Your task to perform on an android device: Open internet settings Image 0: 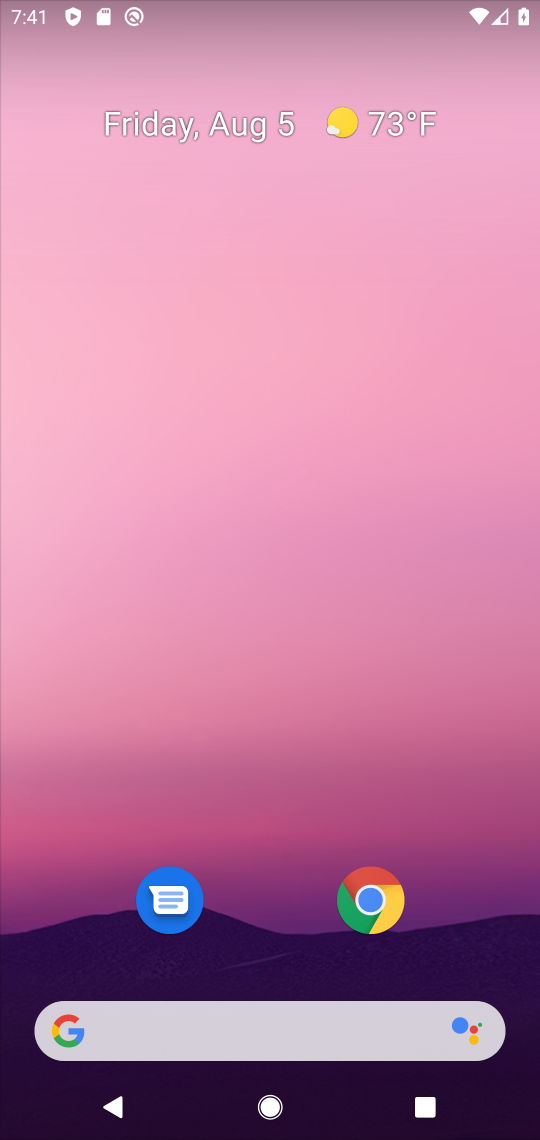
Step 0: drag from (191, 1003) to (287, 354)
Your task to perform on an android device: Open internet settings Image 1: 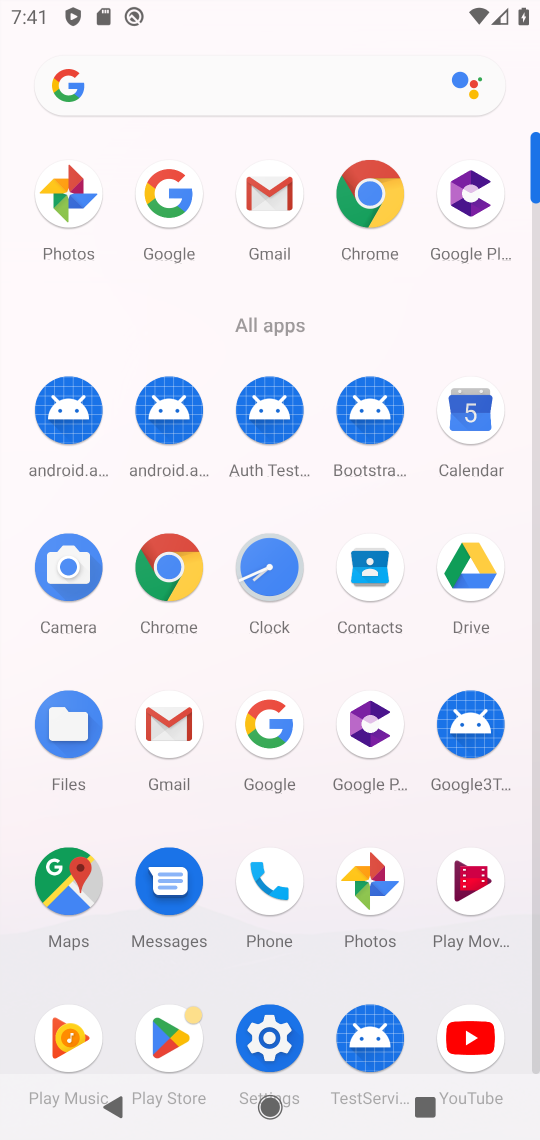
Step 1: click (277, 1042)
Your task to perform on an android device: Open internet settings Image 2: 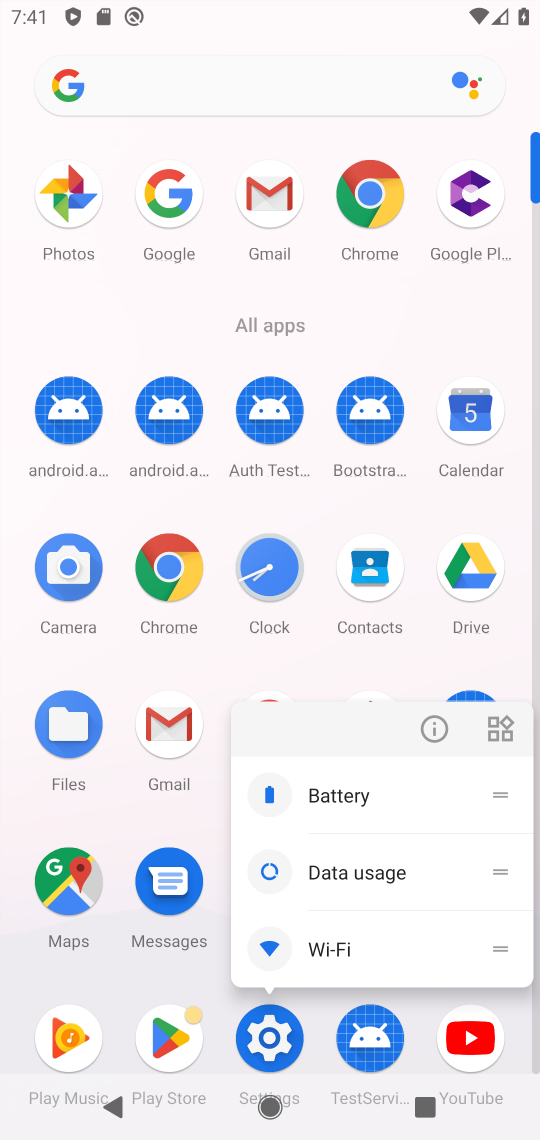
Step 2: click (273, 1041)
Your task to perform on an android device: Open internet settings Image 3: 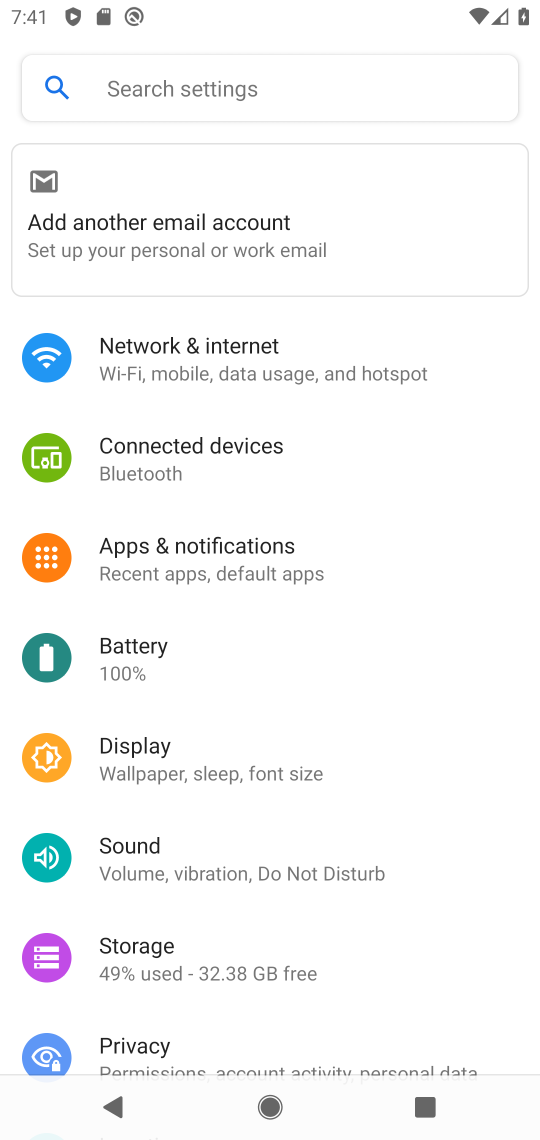
Step 3: click (166, 353)
Your task to perform on an android device: Open internet settings Image 4: 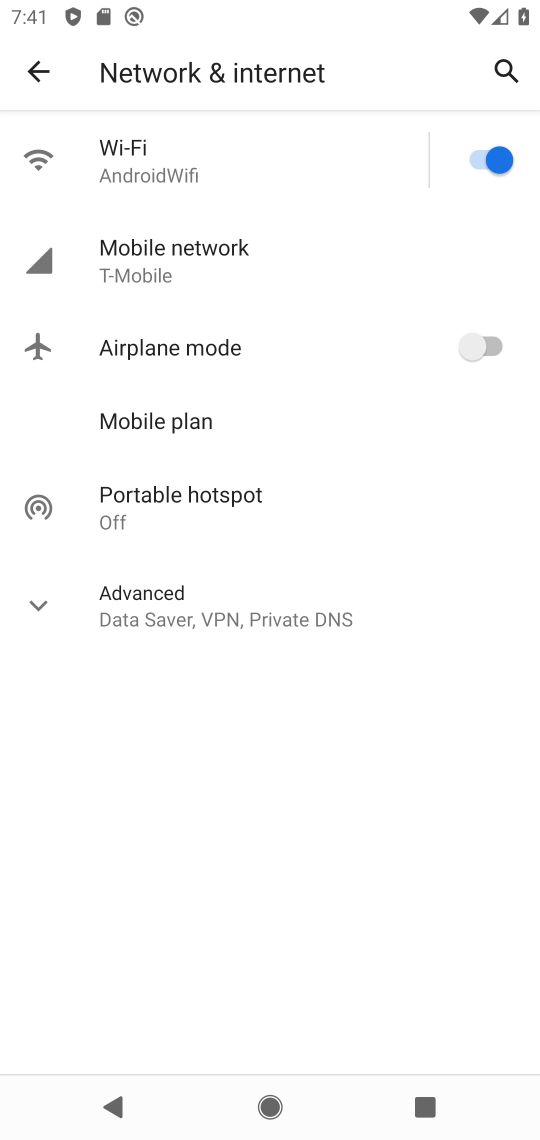
Step 4: click (123, 607)
Your task to perform on an android device: Open internet settings Image 5: 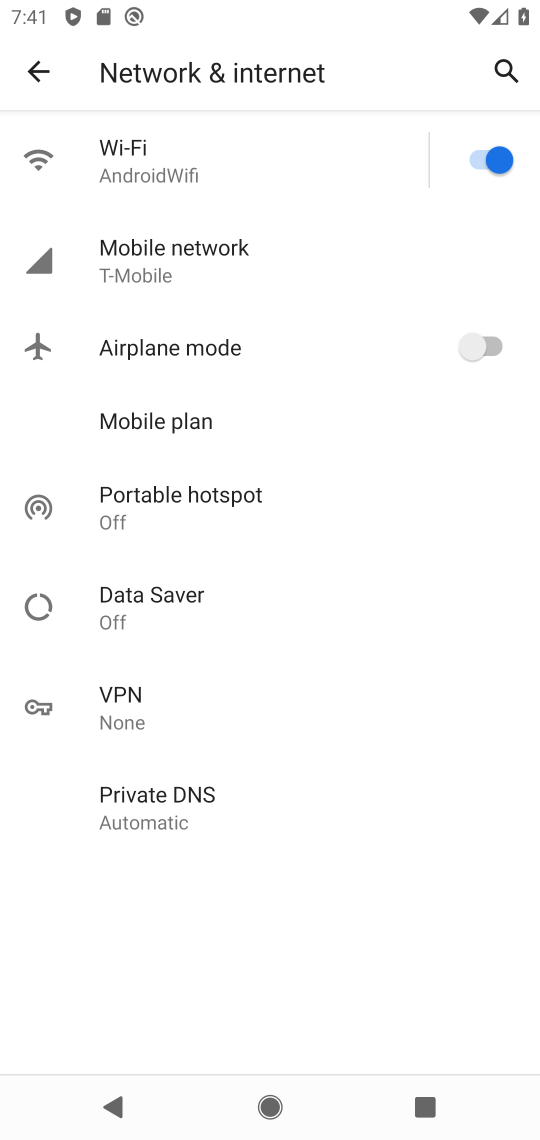
Step 5: task complete